Your task to perform on an android device: Go to Google Image 0: 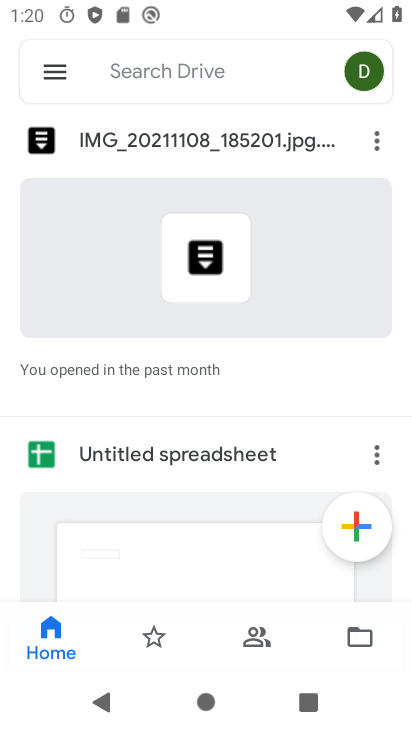
Step 0: press home button
Your task to perform on an android device: Go to Google Image 1: 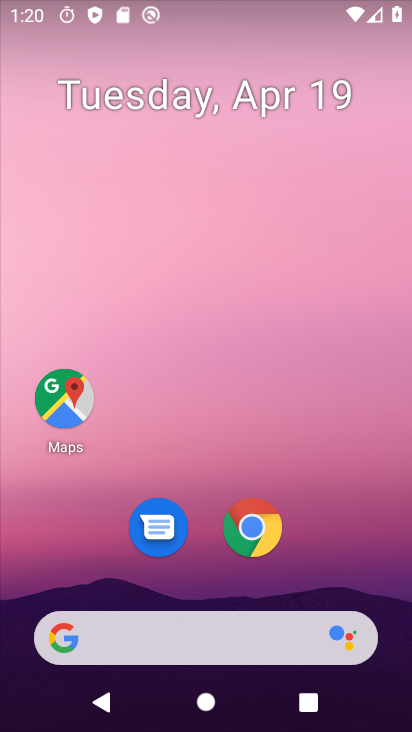
Step 1: drag from (326, 570) to (355, 87)
Your task to perform on an android device: Go to Google Image 2: 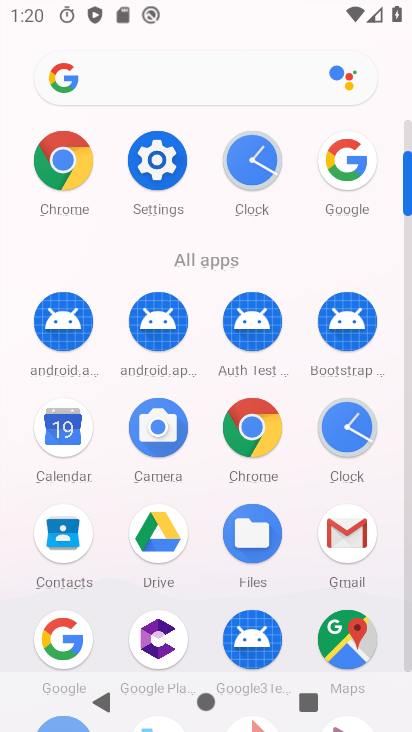
Step 2: click (73, 632)
Your task to perform on an android device: Go to Google Image 3: 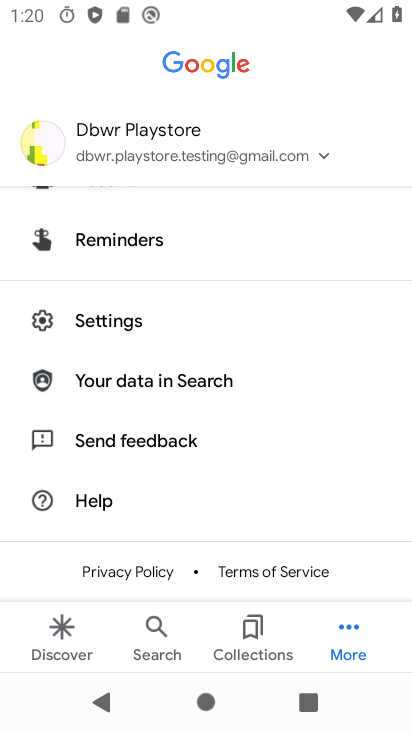
Step 3: task complete